Your task to perform on an android device: Open the web browser Image 0: 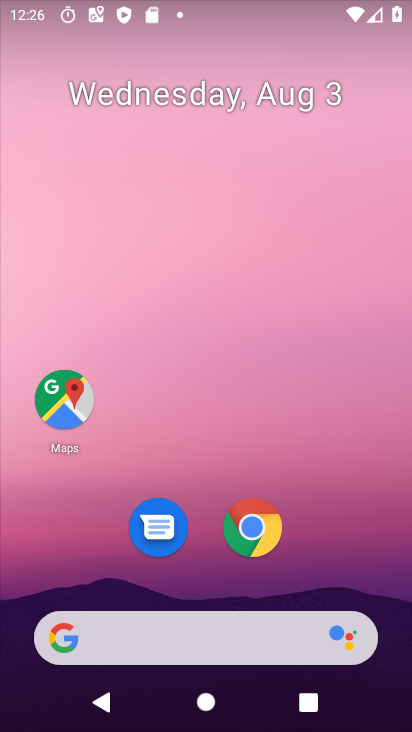
Step 0: click (263, 543)
Your task to perform on an android device: Open the web browser Image 1: 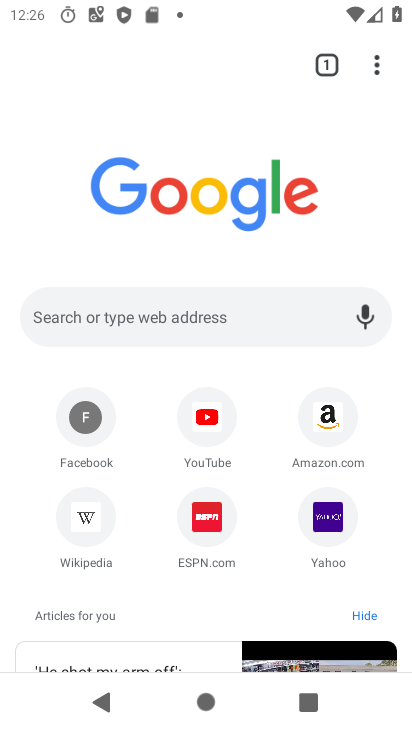
Step 1: task complete